Your task to perform on an android device: Do I have any events tomorrow? Image 0: 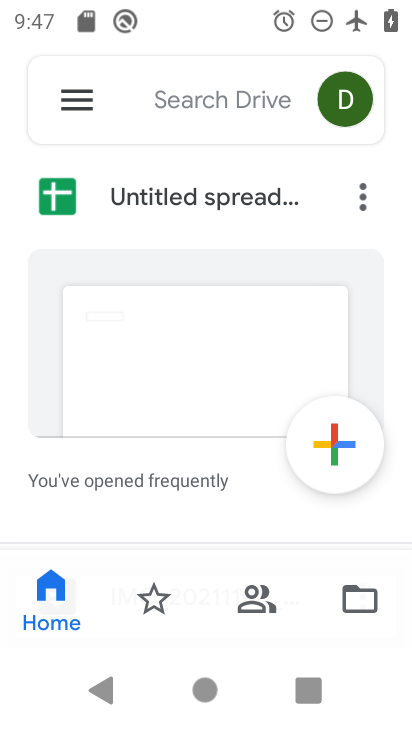
Step 0: press home button
Your task to perform on an android device: Do I have any events tomorrow? Image 1: 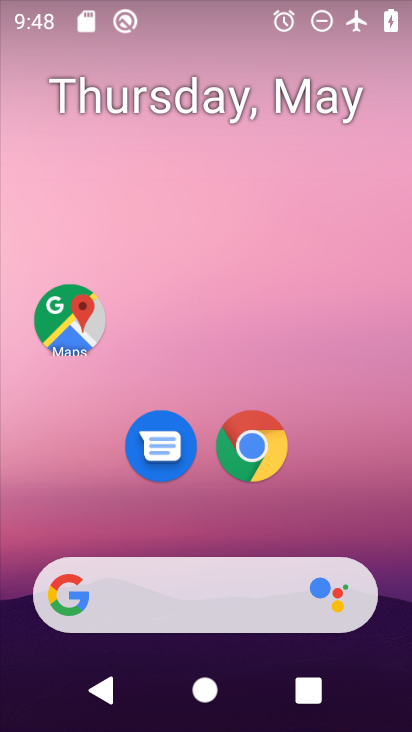
Step 1: drag from (339, 514) to (305, 200)
Your task to perform on an android device: Do I have any events tomorrow? Image 2: 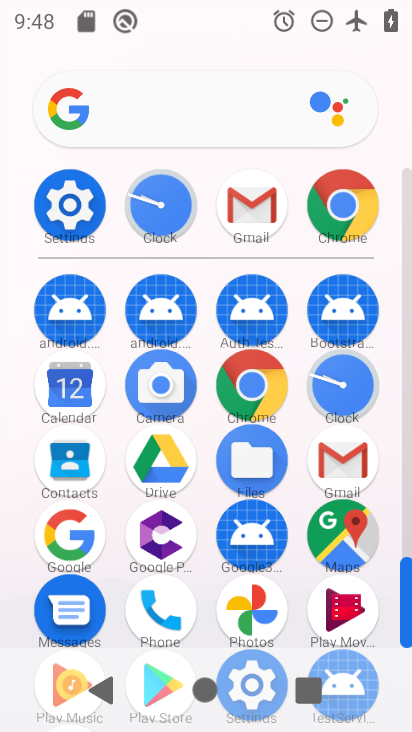
Step 2: click (280, 402)
Your task to perform on an android device: Do I have any events tomorrow? Image 3: 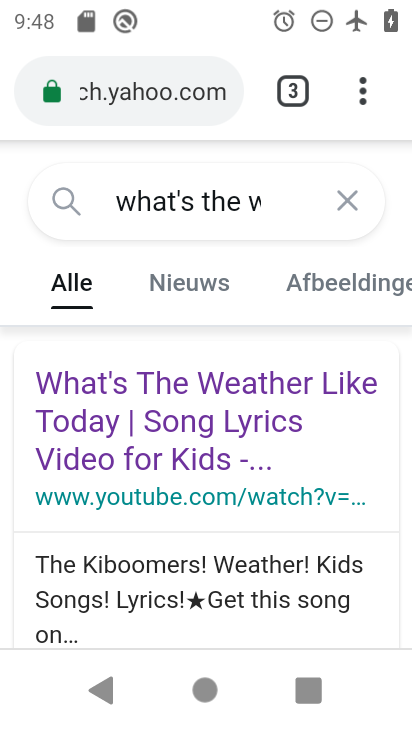
Step 3: click (160, 114)
Your task to perform on an android device: Do I have any events tomorrow? Image 4: 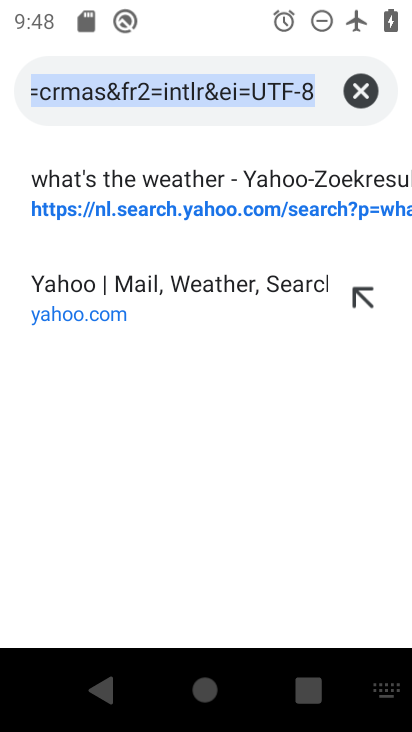
Step 4: click (357, 85)
Your task to perform on an android device: Do I have any events tomorrow? Image 5: 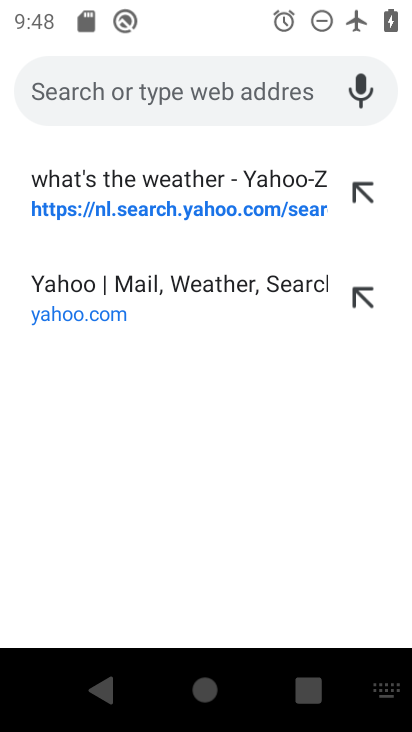
Step 5: click (92, 92)
Your task to perform on an android device: Do I have any events tomorrow? Image 6: 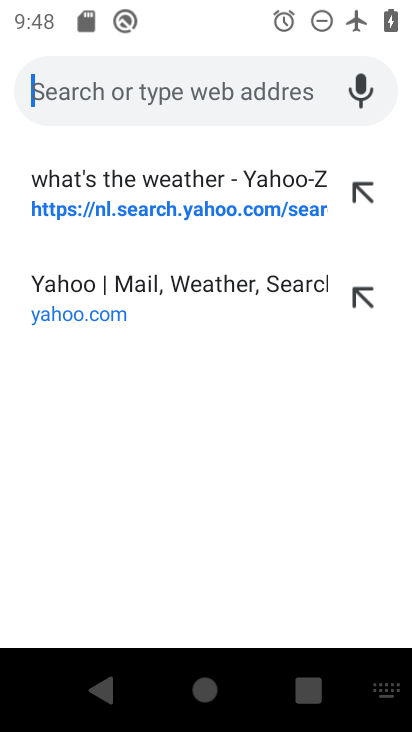
Step 6: type "do i have any events tomorrow"
Your task to perform on an android device: Do I have any events tomorrow? Image 7: 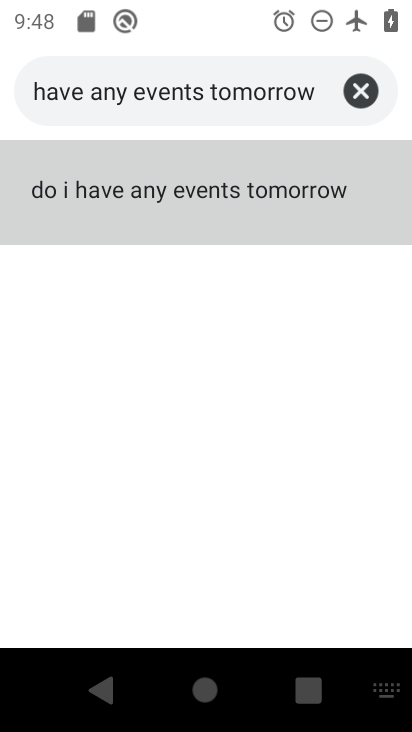
Step 7: click (247, 205)
Your task to perform on an android device: Do I have any events tomorrow? Image 8: 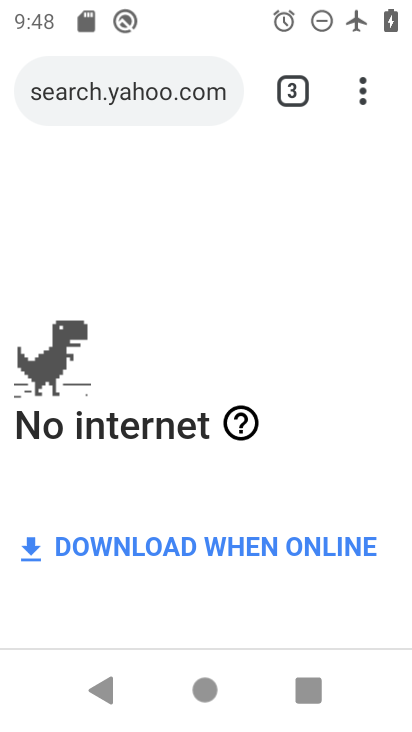
Step 8: task complete